Your task to perform on an android device: Open the map Image 0: 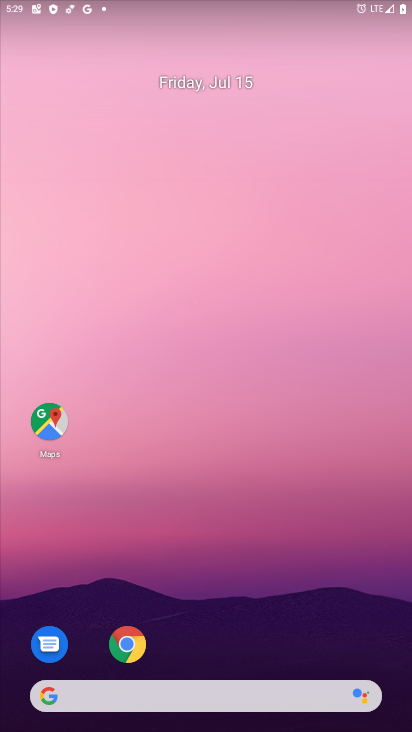
Step 0: drag from (205, 651) to (8, 686)
Your task to perform on an android device: Open the map Image 1: 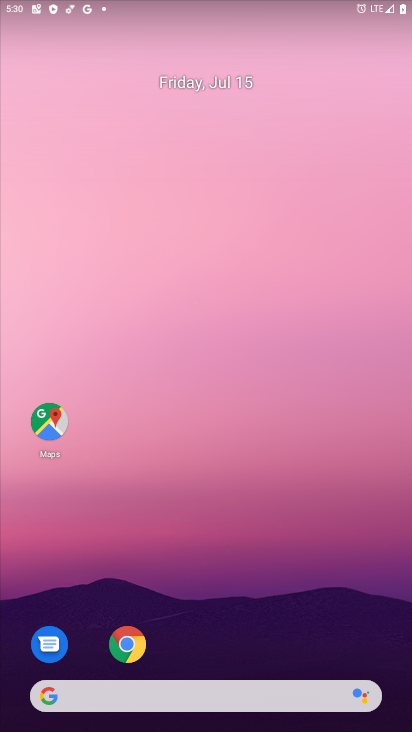
Step 1: click (41, 596)
Your task to perform on an android device: Open the map Image 2: 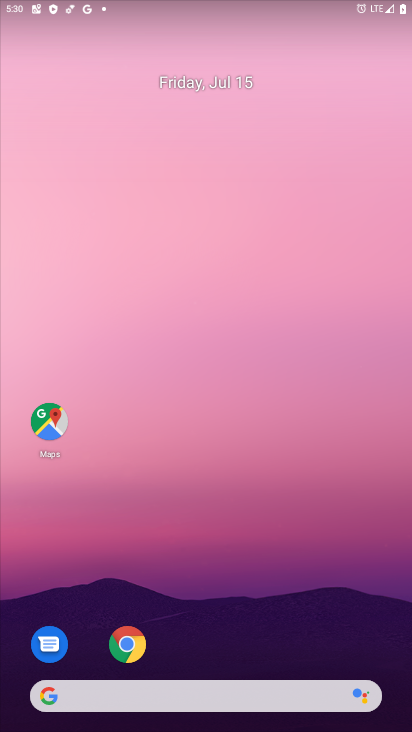
Step 2: click (53, 417)
Your task to perform on an android device: Open the map Image 3: 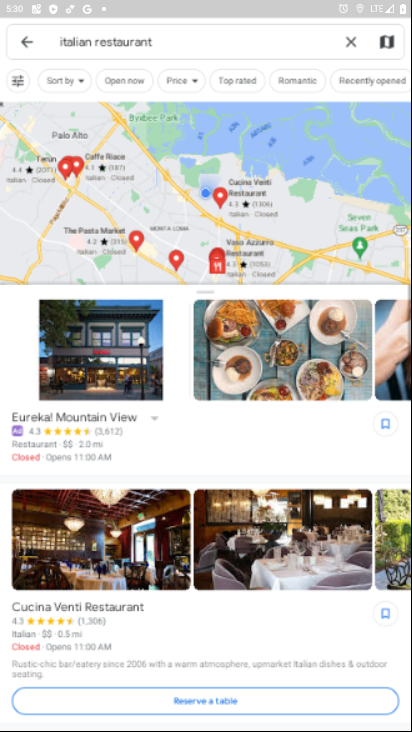
Step 3: task complete